Your task to perform on an android device: snooze an email in the gmail app Image 0: 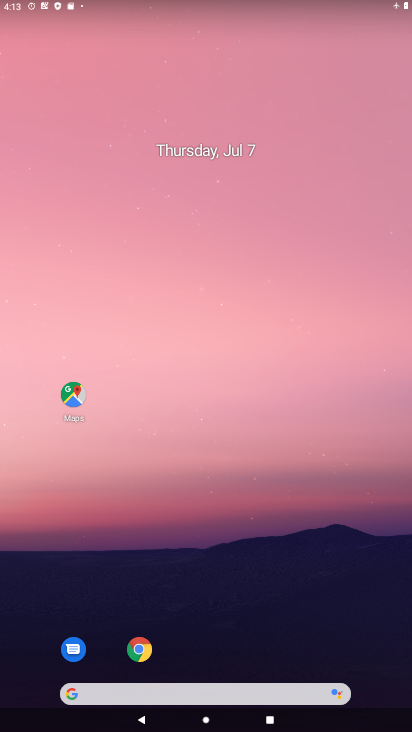
Step 0: drag from (370, 687) to (308, 180)
Your task to perform on an android device: snooze an email in the gmail app Image 1: 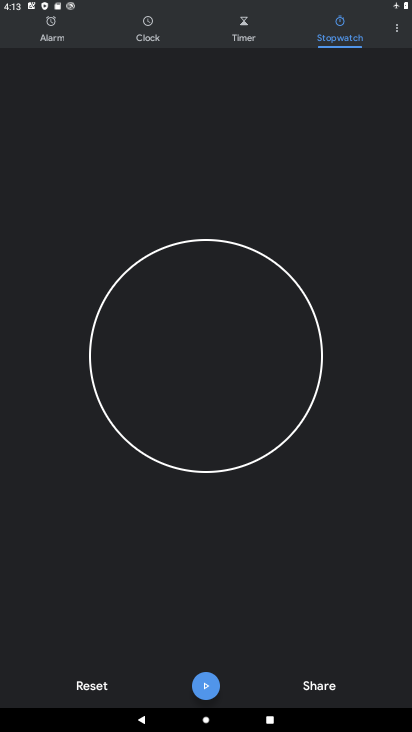
Step 1: press home button
Your task to perform on an android device: snooze an email in the gmail app Image 2: 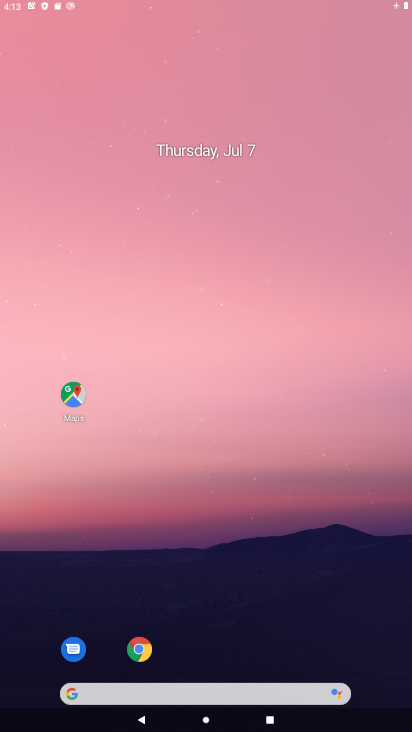
Step 2: drag from (381, 689) to (282, 114)
Your task to perform on an android device: snooze an email in the gmail app Image 3: 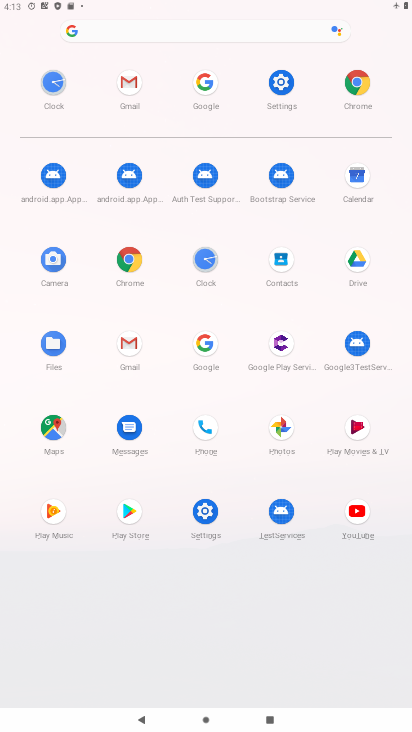
Step 3: click (122, 353)
Your task to perform on an android device: snooze an email in the gmail app Image 4: 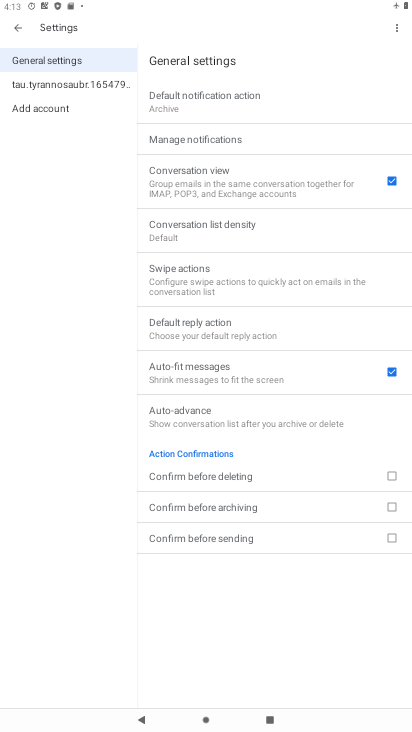
Step 4: press back button
Your task to perform on an android device: snooze an email in the gmail app Image 5: 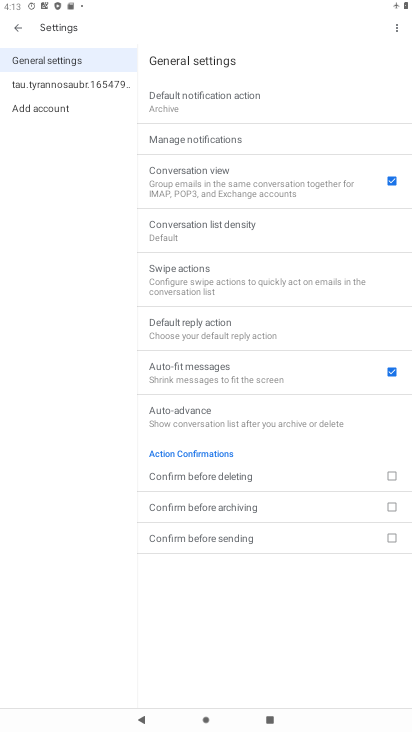
Step 5: press back button
Your task to perform on an android device: snooze an email in the gmail app Image 6: 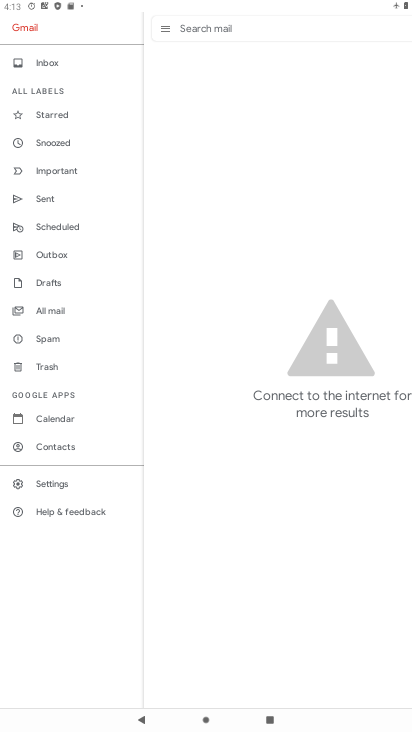
Step 6: click (62, 143)
Your task to perform on an android device: snooze an email in the gmail app Image 7: 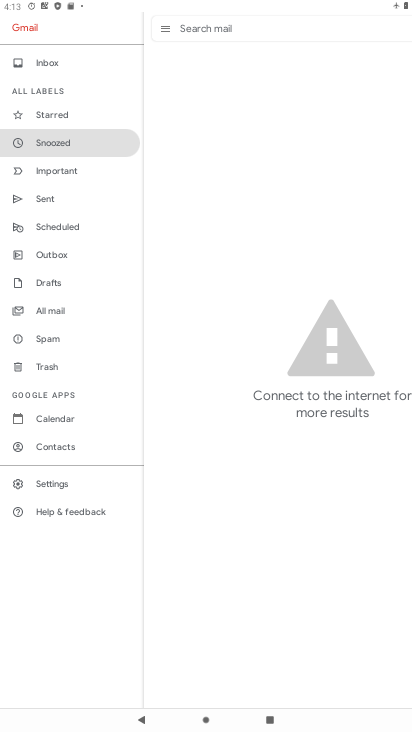
Step 7: task complete